Your task to perform on an android device: choose inbox layout in the gmail app Image 0: 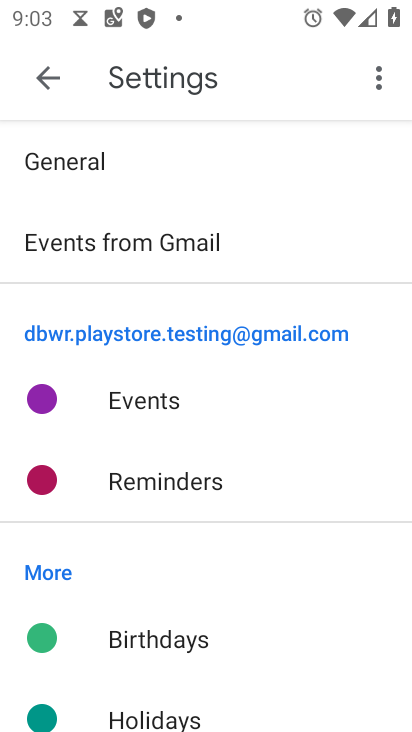
Step 0: press back button
Your task to perform on an android device: choose inbox layout in the gmail app Image 1: 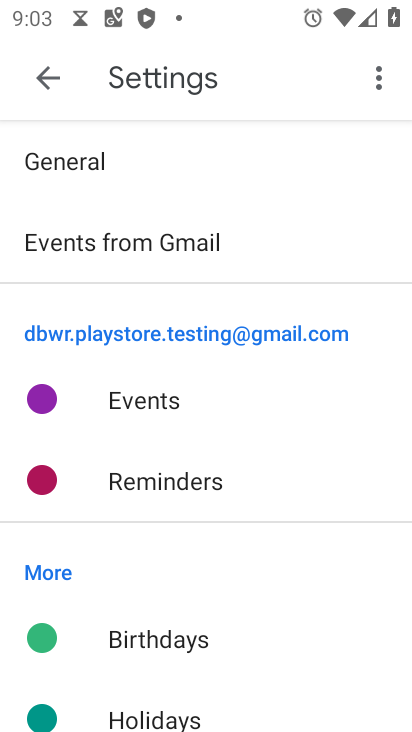
Step 1: press back button
Your task to perform on an android device: choose inbox layout in the gmail app Image 2: 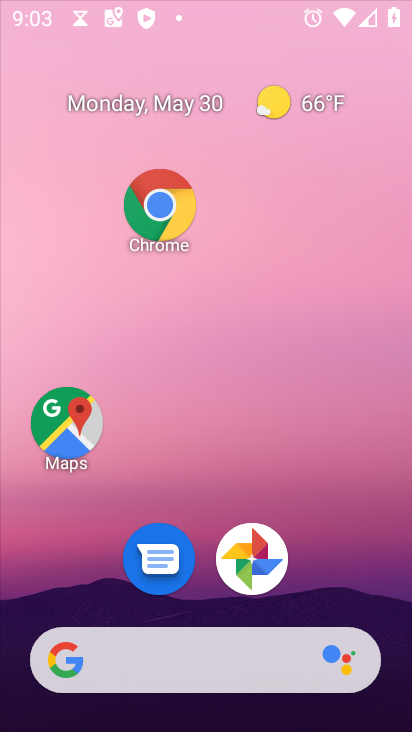
Step 2: press back button
Your task to perform on an android device: choose inbox layout in the gmail app Image 3: 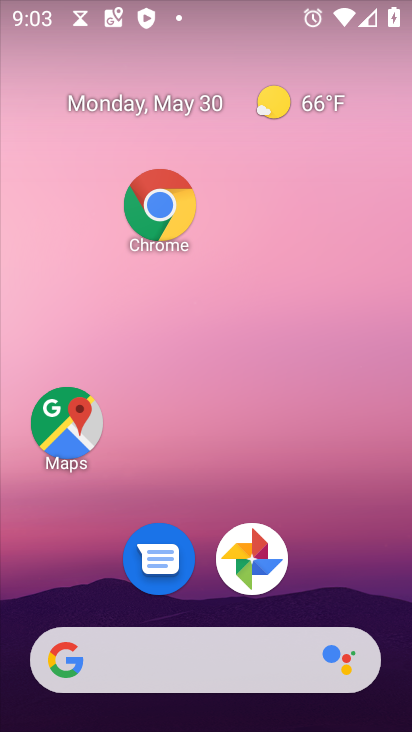
Step 3: drag from (224, 651) to (148, 82)
Your task to perform on an android device: choose inbox layout in the gmail app Image 4: 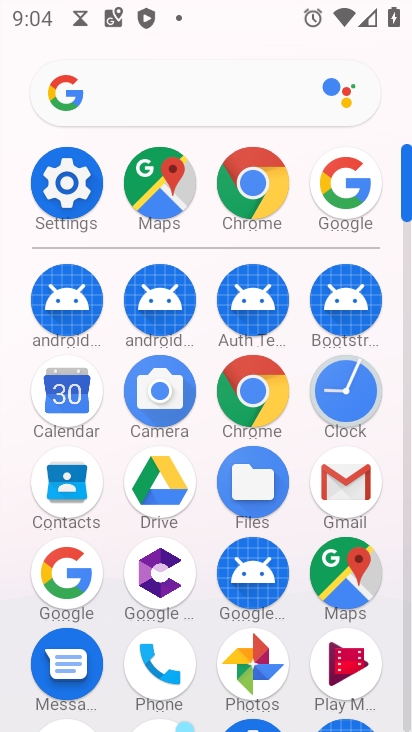
Step 4: click (345, 485)
Your task to perform on an android device: choose inbox layout in the gmail app Image 5: 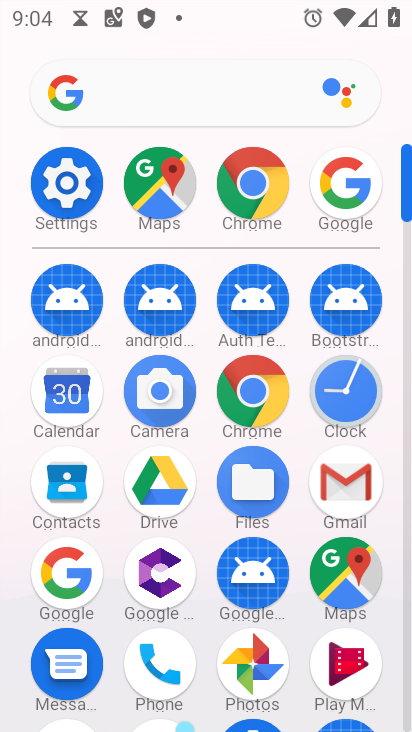
Step 5: click (345, 485)
Your task to perform on an android device: choose inbox layout in the gmail app Image 6: 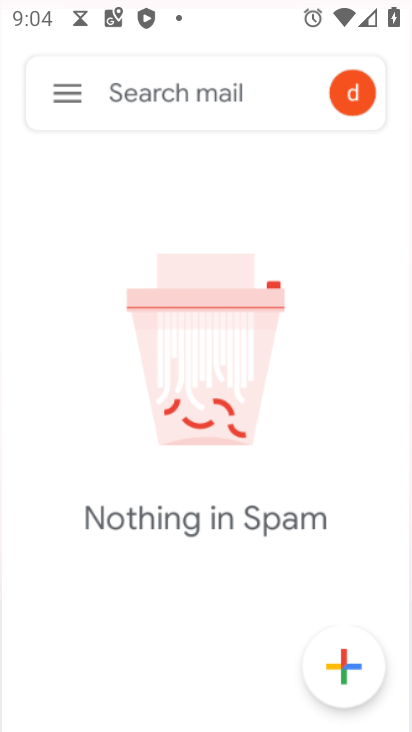
Step 6: click (346, 486)
Your task to perform on an android device: choose inbox layout in the gmail app Image 7: 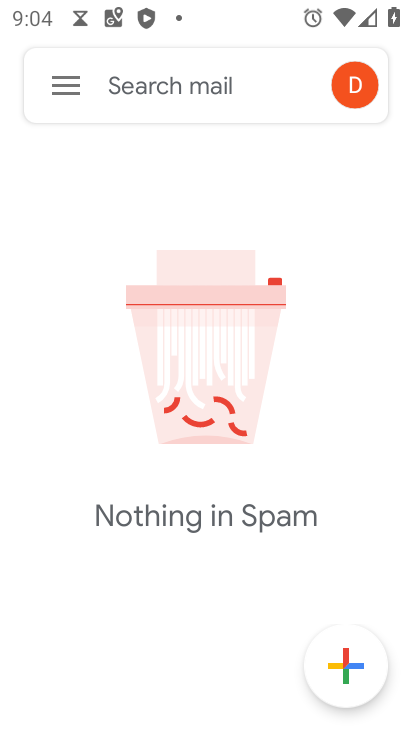
Step 7: click (62, 91)
Your task to perform on an android device: choose inbox layout in the gmail app Image 8: 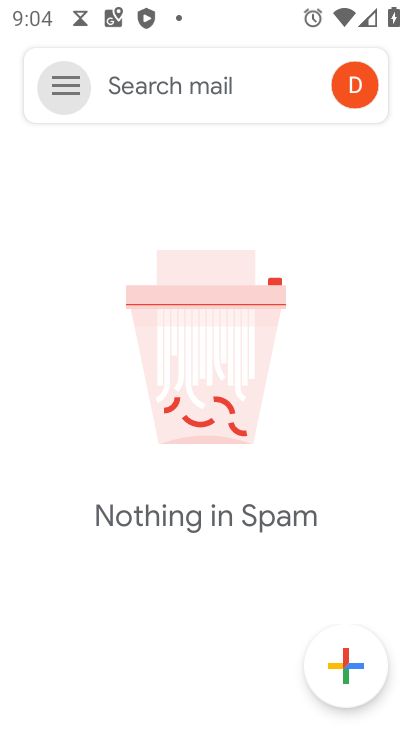
Step 8: click (62, 91)
Your task to perform on an android device: choose inbox layout in the gmail app Image 9: 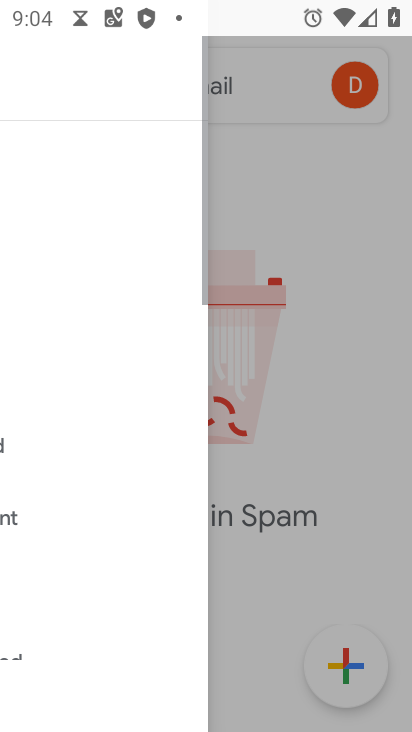
Step 9: click (63, 91)
Your task to perform on an android device: choose inbox layout in the gmail app Image 10: 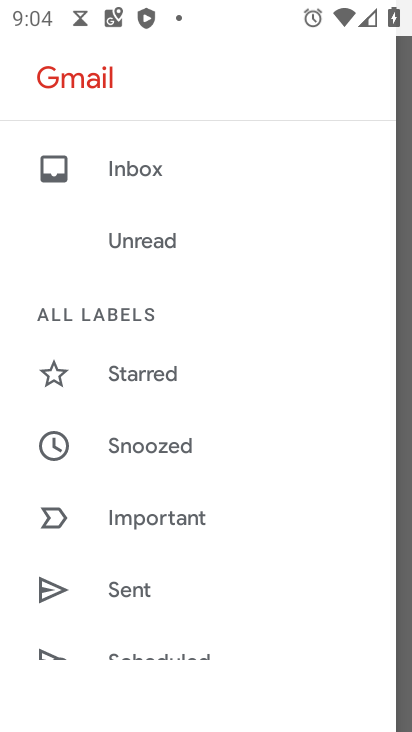
Step 10: drag from (188, 580) to (175, 210)
Your task to perform on an android device: choose inbox layout in the gmail app Image 11: 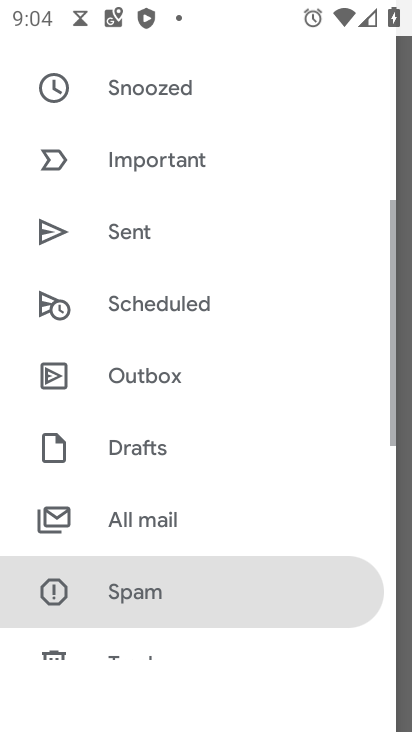
Step 11: drag from (251, 486) to (234, 41)
Your task to perform on an android device: choose inbox layout in the gmail app Image 12: 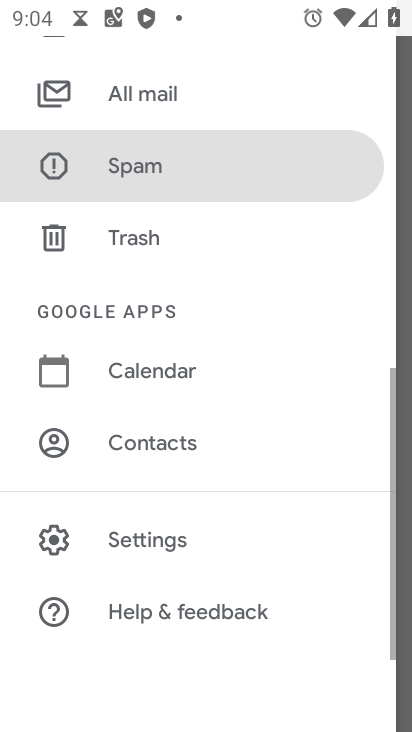
Step 12: drag from (204, 492) to (198, 75)
Your task to perform on an android device: choose inbox layout in the gmail app Image 13: 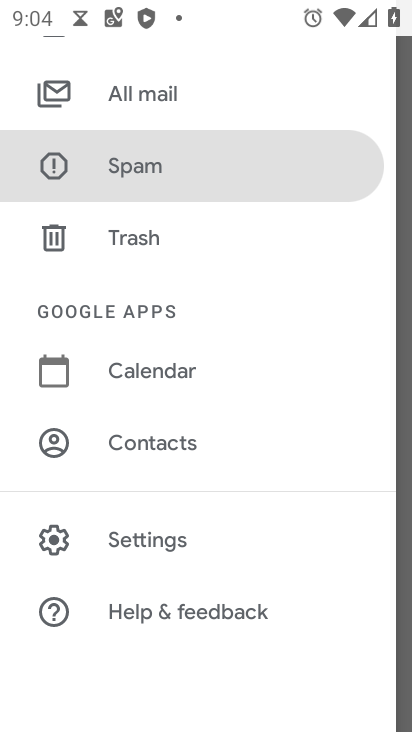
Step 13: click (132, 537)
Your task to perform on an android device: choose inbox layout in the gmail app Image 14: 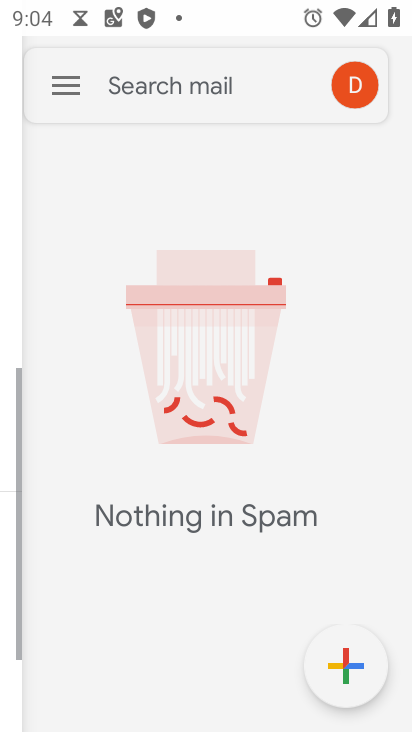
Step 14: click (143, 527)
Your task to perform on an android device: choose inbox layout in the gmail app Image 15: 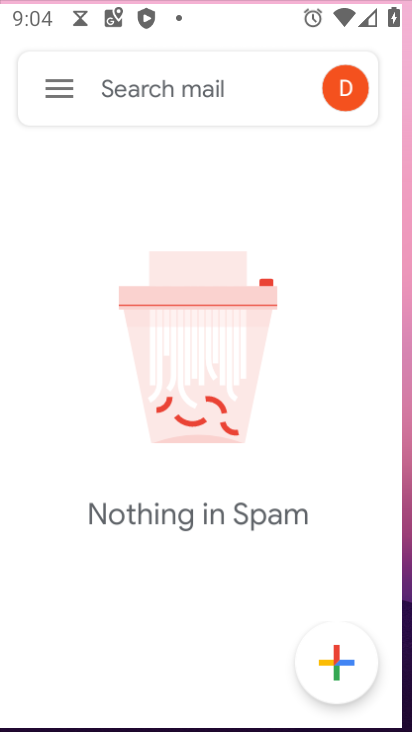
Step 15: click (145, 533)
Your task to perform on an android device: choose inbox layout in the gmail app Image 16: 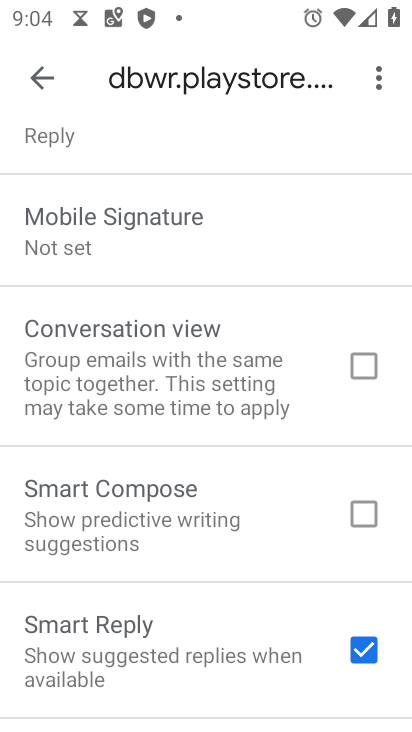
Step 16: task complete